Your task to perform on an android device: turn on javascript in the chrome app Image 0: 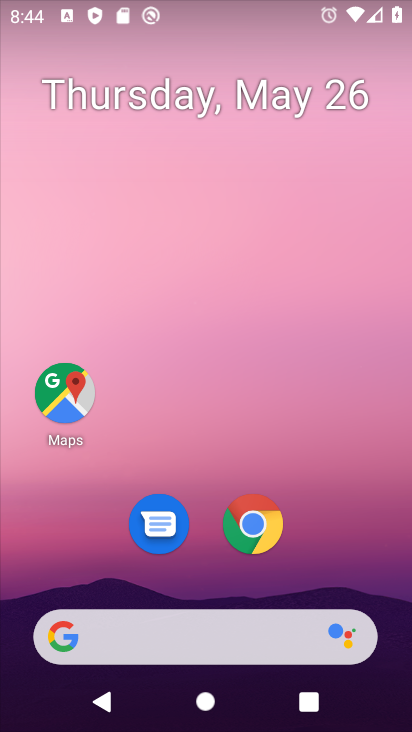
Step 0: click (260, 521)
Your task to perform on an android device: turn on javascript in the chrome app Image 1: 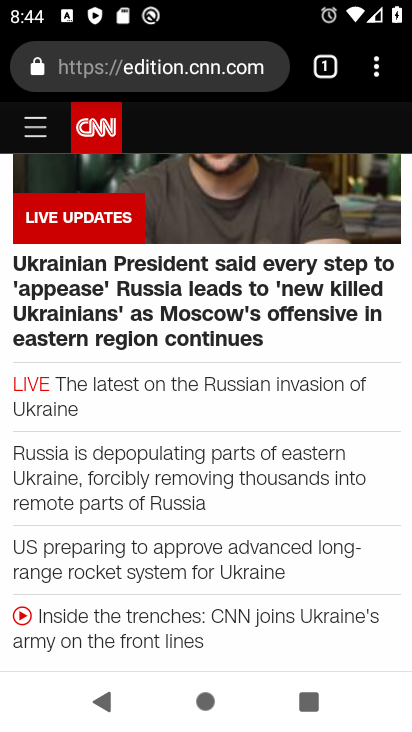
Step 1: click (376, 61)
Your task to perform on an android device: turn on javascript in the chrome app Image 2: 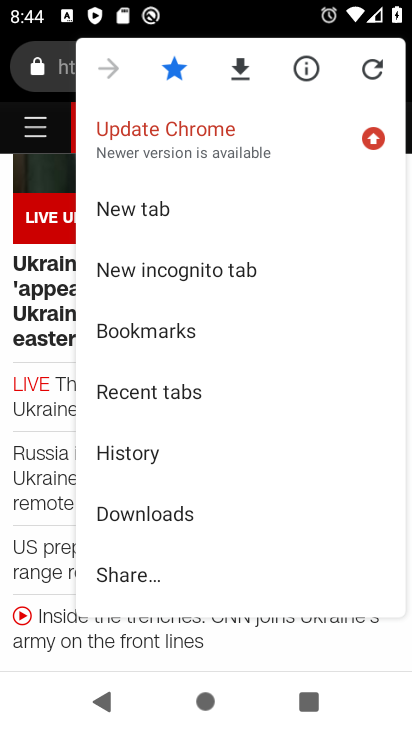
Step 2: drag from (287, 482) to (314, 162)
Your task to perform on an android device: turn on javascript in the chrome app Image 3: 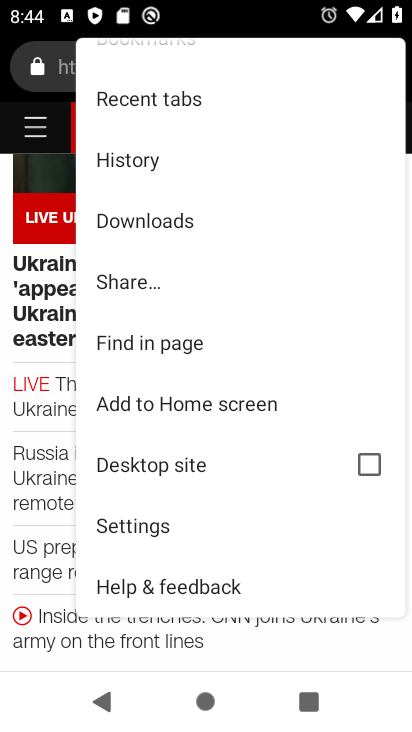
Step 3: click (224, 519)
Your task to perform on an android device: turn on javascript in the chrome app Image 4: 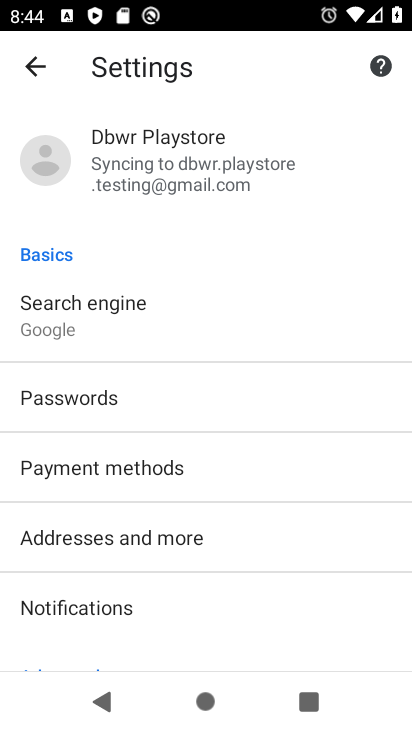
Step 4: drag from (264, 574) to (271, 260)
Your task to perform on an android device: turn on javascript in the chrome app Image 5: 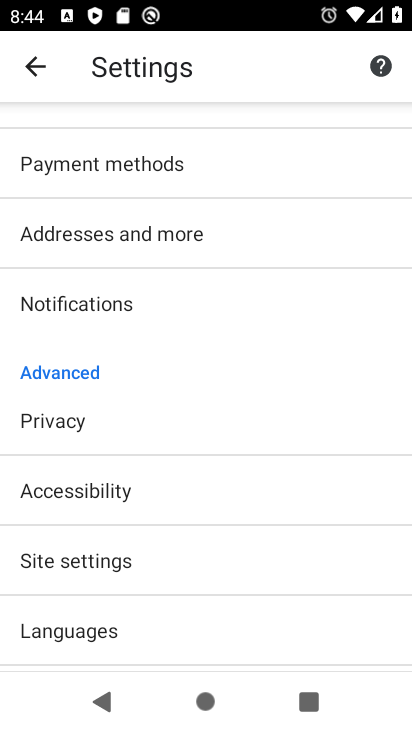
Step 5: click (225, 555)
Your task to perform on an android device: turn on javascript in the chrome app Image 6: 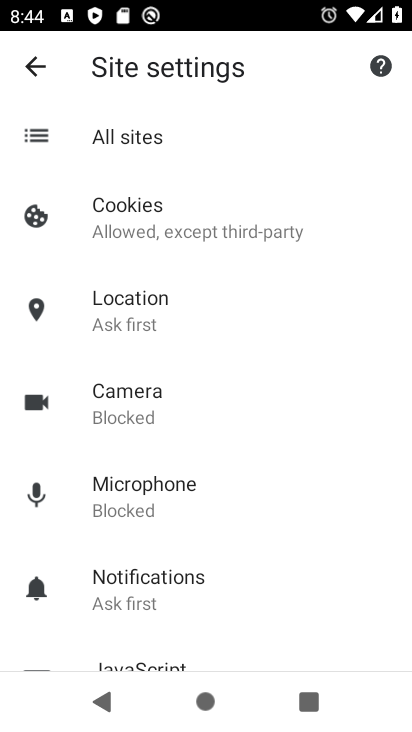
Step 6: drag from (222, 535) to (219, 370)
Your task to perform on an android device: turn on javascript in the chrome app Image 7: 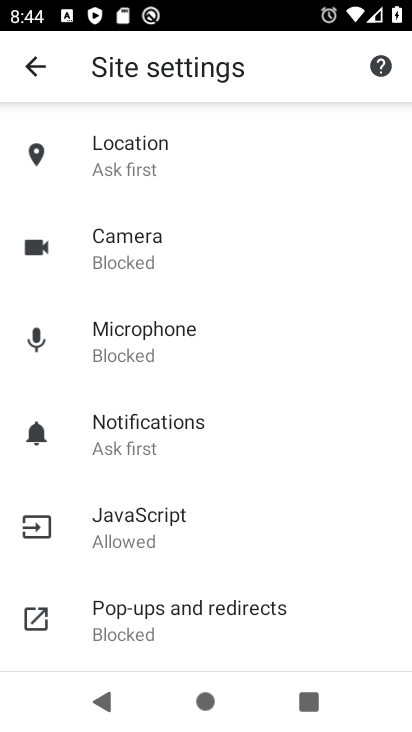
Step 7: click (212, 529)
Your task to perform on an android device: turn on javascript in the chrome app Image 8: 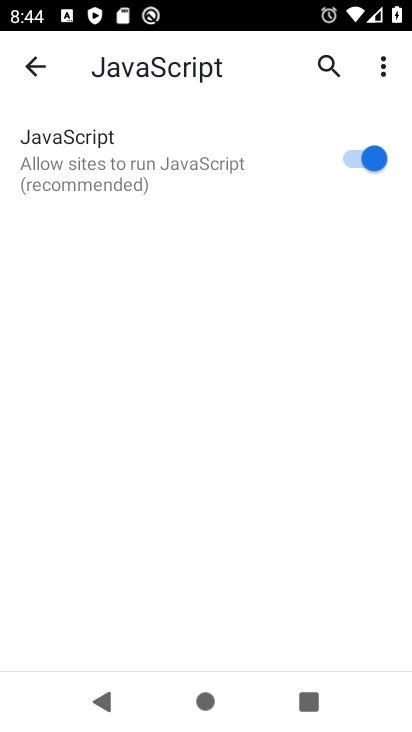
Step 8: task complete